Your task to perform on an android device: toggle location history Image 0: 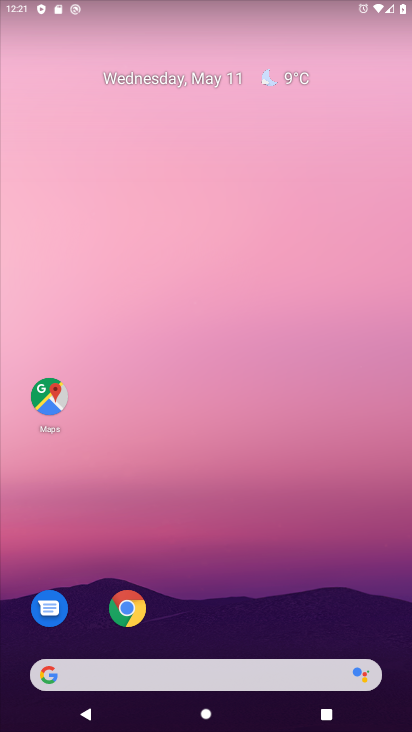
Step 0: drag from (165, 623) to (154, 249)
Your task to perform on an android device: toggle location history Image 1: 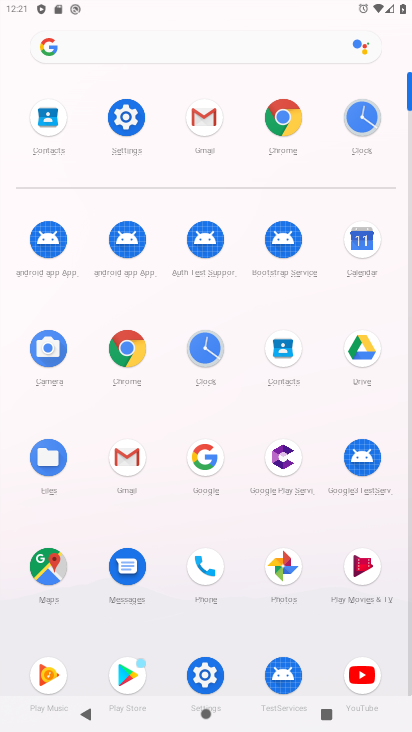
Step 1: click (132, 139)
Your task to perform on an android device: toggle location history Image 2: 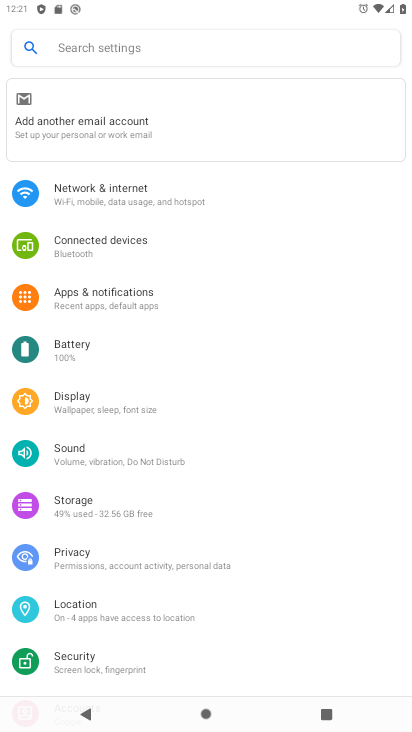
Step 2: drag from (132, 596) to (124, 372)
Your task to perform on an android device: toggle location history Image 3: 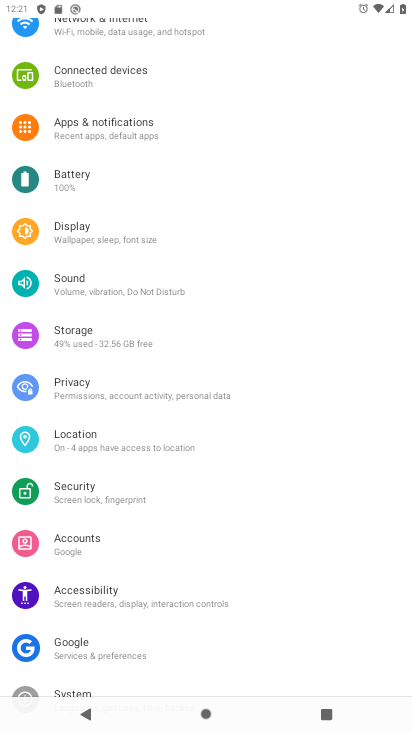
Step 3: click (127, 453)
Your task to perform on an android device: toggle location history Image 4: 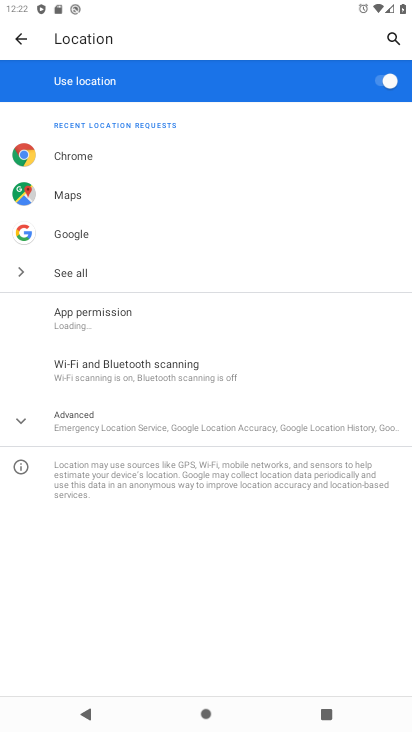
Step 4: click (144, 423)
Your task to perform on an android device: toggle location history Image 5: 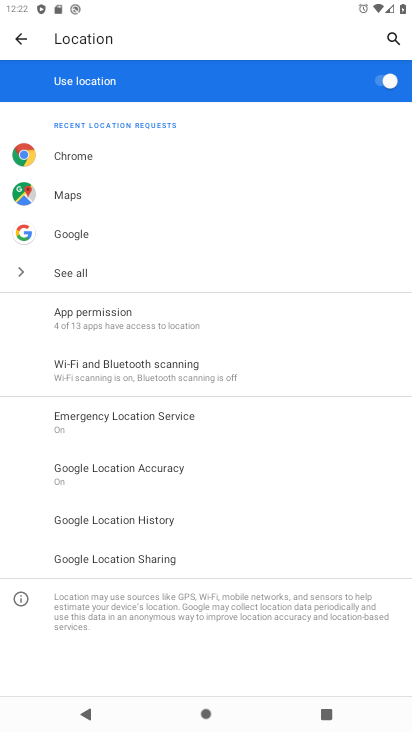
Step 5: drag from (151, 531) to (160, 444)
Your task to perform on an android device: toggle location history Image 6: 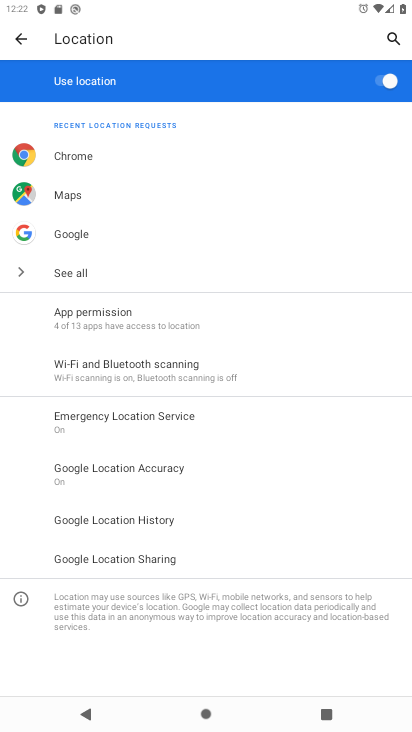
Step 6: click (144, 515)
Your task to perform on an android device: toggle location history Image 7: 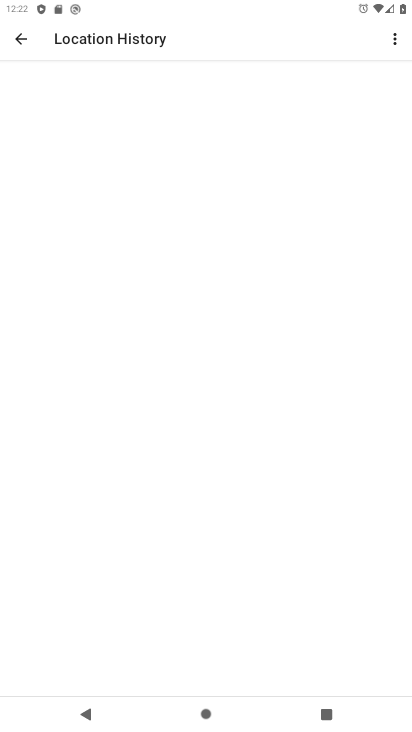
Step 7: click (144, 515)
Your task to perform on an android device: toggle location history Image 8: 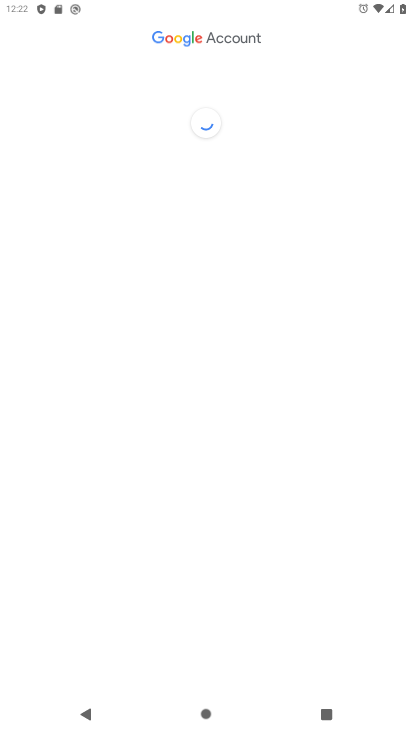
Step 8: click (144, 515)
Your task to perform on an android device: toggle location history Image 9: 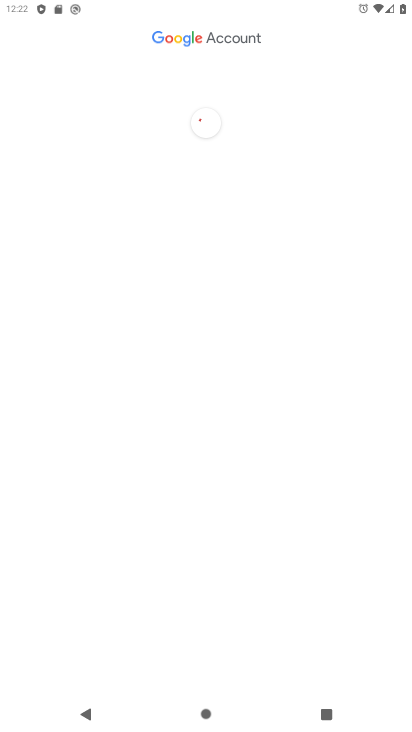
Step 9: click (144, 515)
Your task to perform on an android device: toggle location history Image 10: 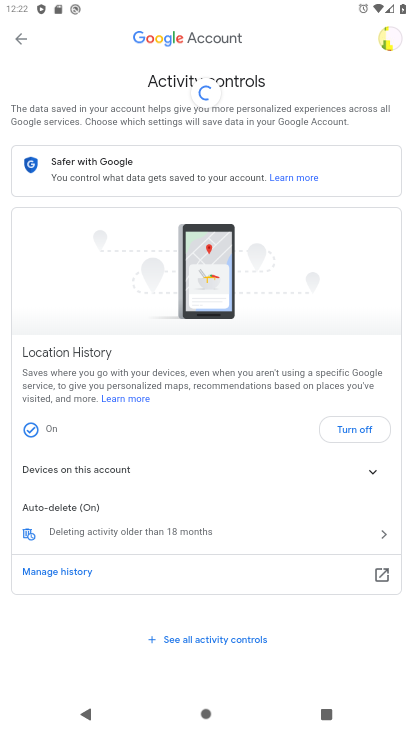
Step 10: click (359, 426)
Your task to perform on an android device: toggle location history Image 11: 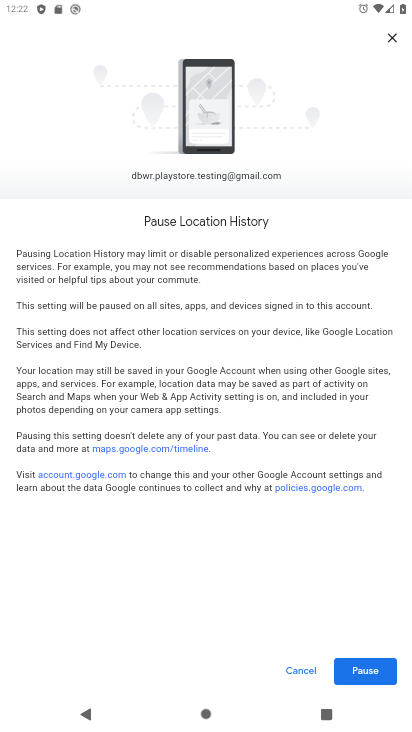
Step 11: drag from (293, 526) to (305, 342)
Your task to perform on an android device: toggle location history Image 12: 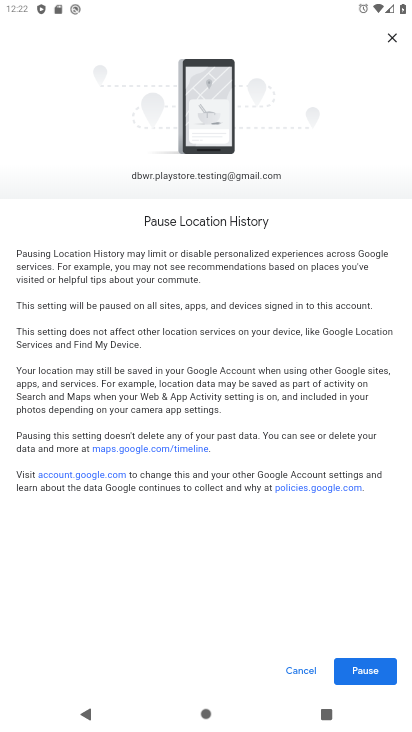
Step 12: click (347, 669)
Your task to perform on an android device: toggle location history Image 13: 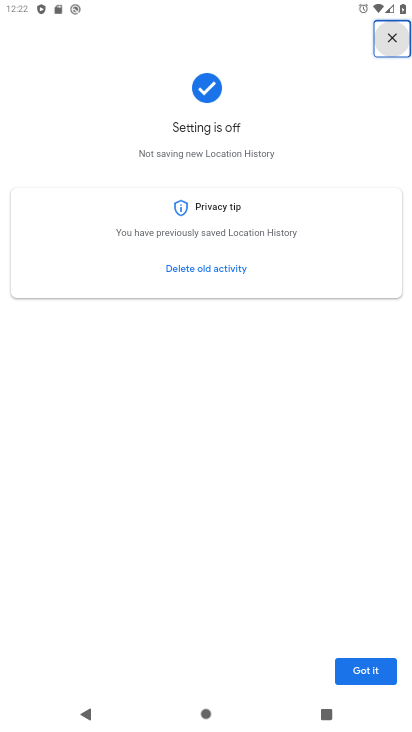
Step 13: click (361, 672)
Your task to perform on an android device: toggle location history Image 14: 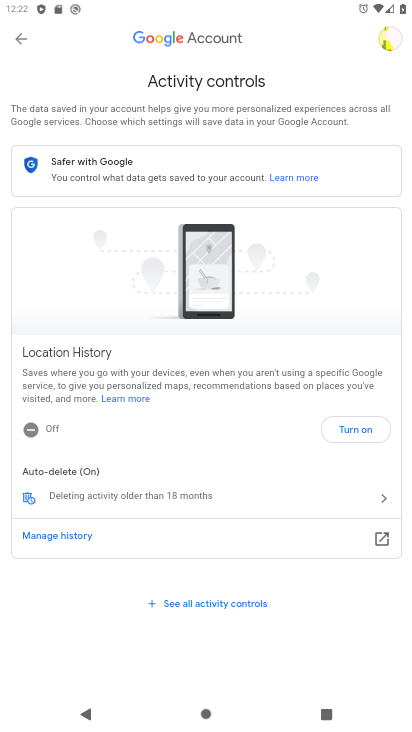
Step 14: task complete